Your task to perform on an android device: Is it going to rain today? Image 0: 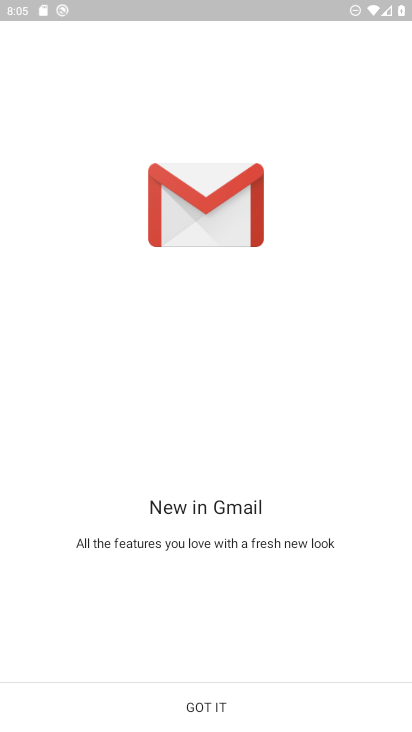
Step 0: press home button
Your task to perform on an android device: Is it going to rain today? Image 1: 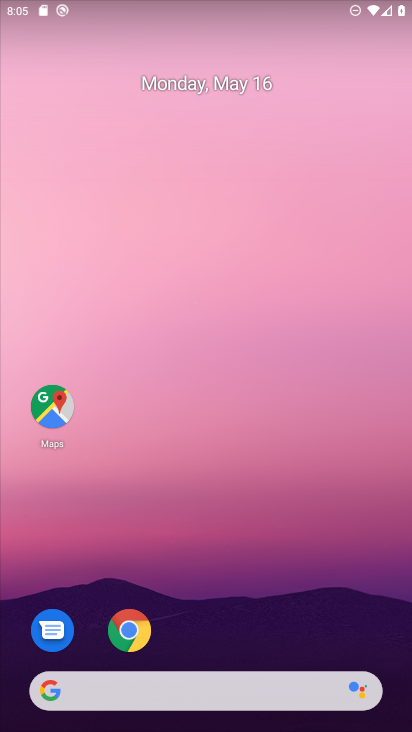
Step 1: click (172, 681)
Your task to perform on an android device: Is it going to rain today? Image 2: 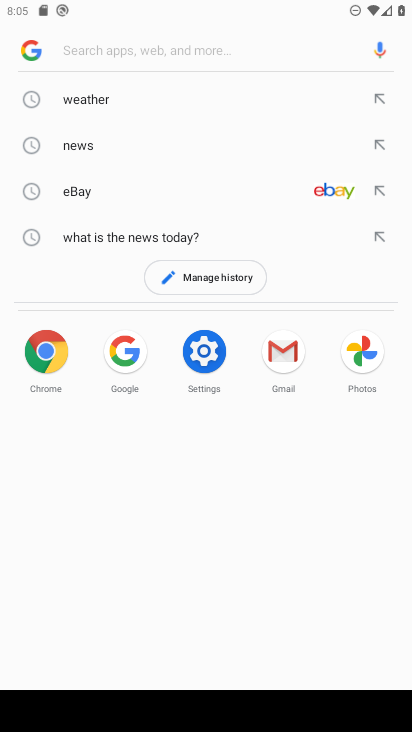
Step 2: type "is it going to rain today"
Your task to perform on an android device: Is it going to rain today? Image 3: 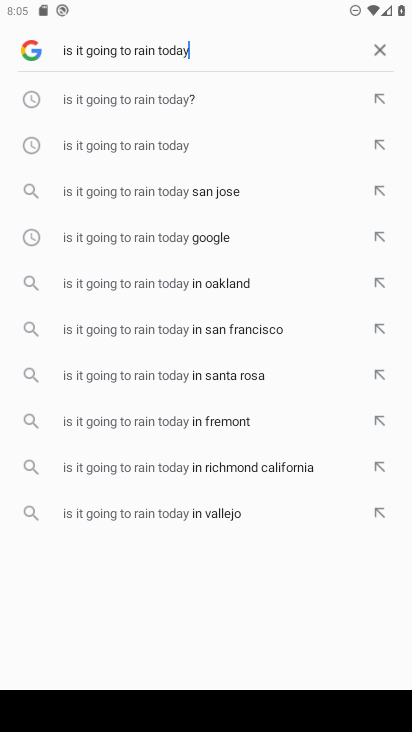
Step 3: click (373, 35)
Your task to perform on an android device: Is it going to rain today? Image 4: 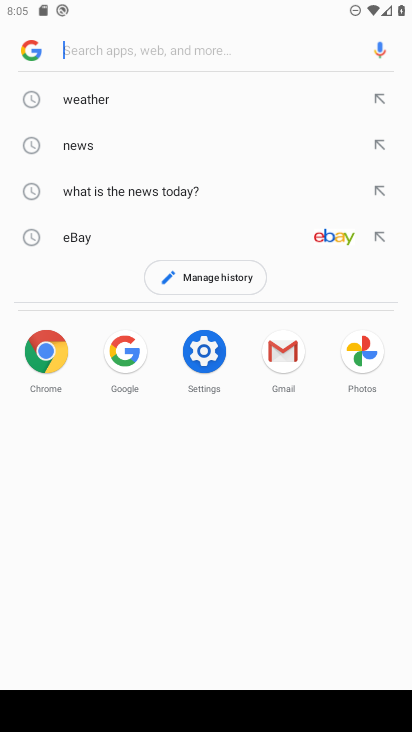
Step 4: click (162, 103)
Your task to perform on an android device: Is it going to rain today? Image 5: 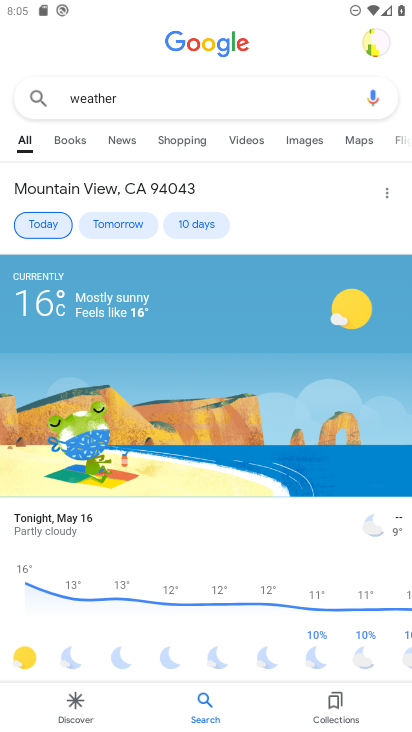
Step 5: task complete